Your task to perform on an android device: delete the emails in spam in the gmail app Image 0: 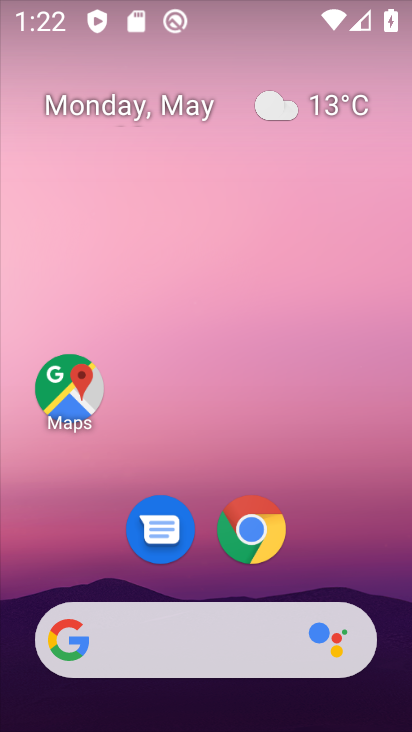
Step 0: drag from (388, 601) to (336, 121)
Your task to perform on an android device: delete the emails in spam in the gmail app Image 1: 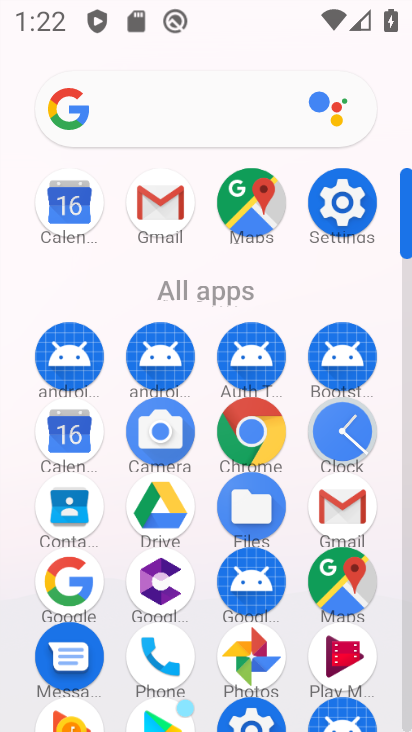
Step 1: click (166, 219)
Your task to perform on an android device: delete the emails in spam in the gmail app Image 2: 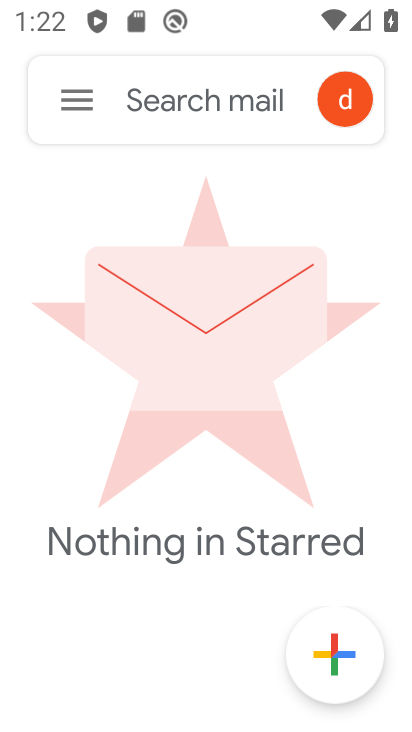
Step 2: click (76, 101)
Your task to perform on an android device: delete the emails in spam in the gmail app Image 3: 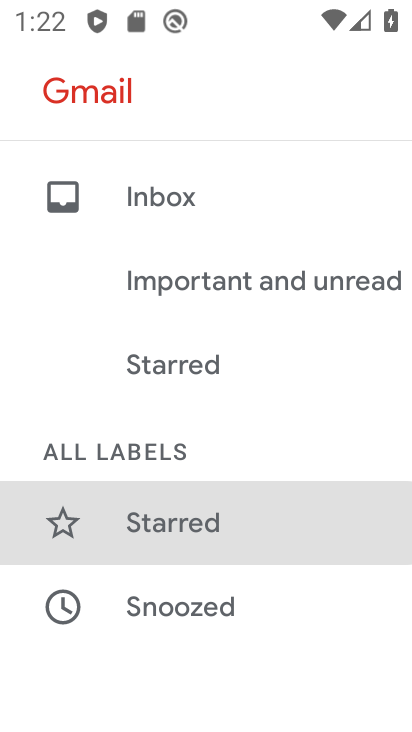
Step 3: drag from (306, 663) to (321, 140)
Your task to perform on an android device: delete the emails in spam in the gmail app Image 4: 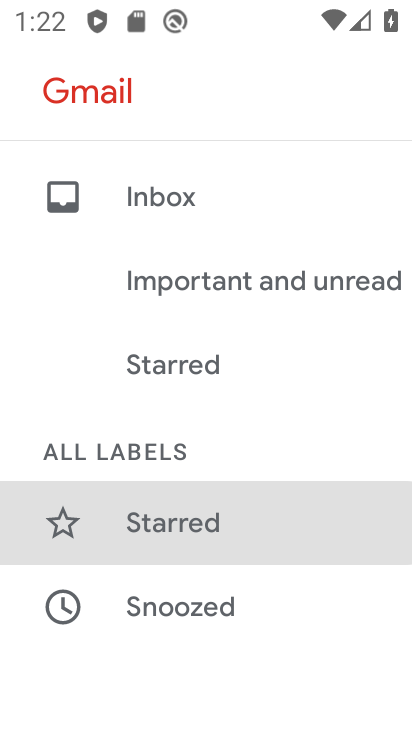
Step 4: drag from (313, 631) to (299, 149)
Your task to perform on an android device: delete the emails in spam in the gmail app Image 5: 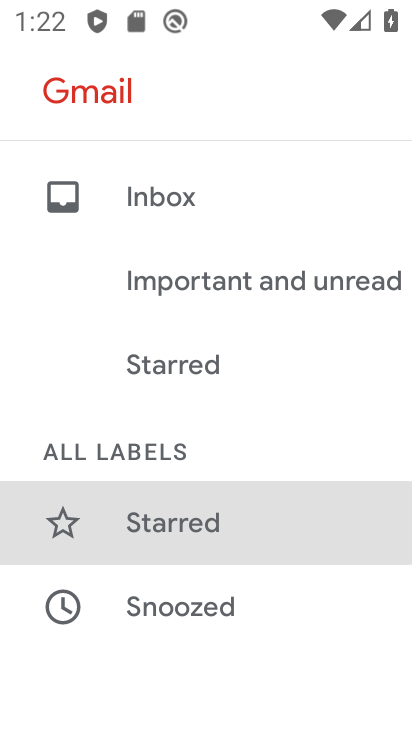
Step 5: drag from (264, 582) to (208, 56)
Your task to perform on an android device: delete the emails in spam in the gmail app Image 6: 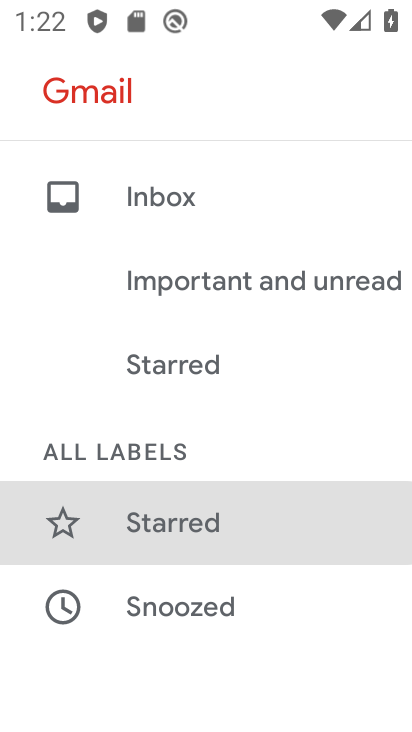
Step 6: drag from (136, 624) to (201, 22)
Your task to perform on an android device: delete the emails in spam in the gmail app Image 7: 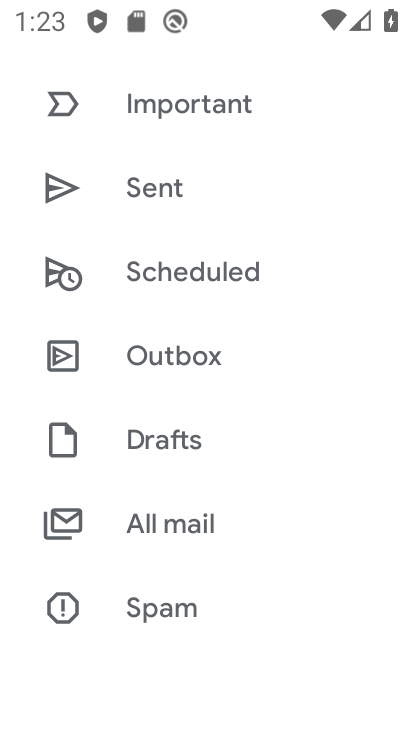
Step 7: click (165, 599)
Your task to perform on an android device: delete the emails in spam in the gmail app Image 8: 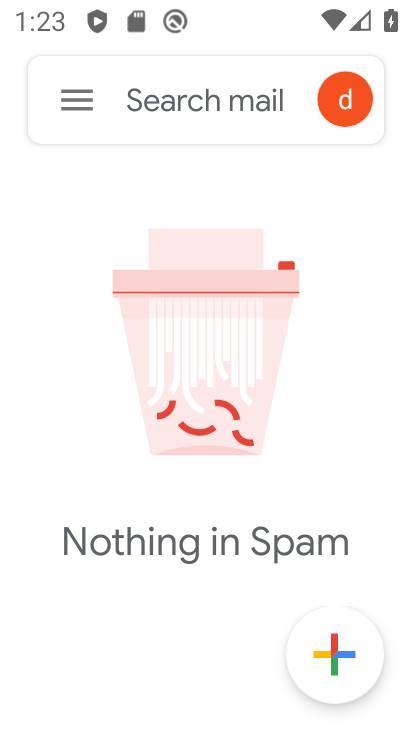
Step 8: task complete